Your task to perform on an android device: Open Google Maps Image 0: 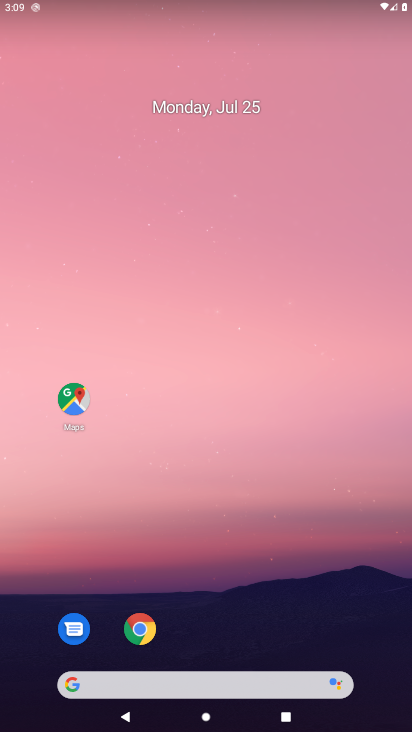
Step 0: click (82, 399)
Your task to perform on an android device: Open Google Maps Image 1: 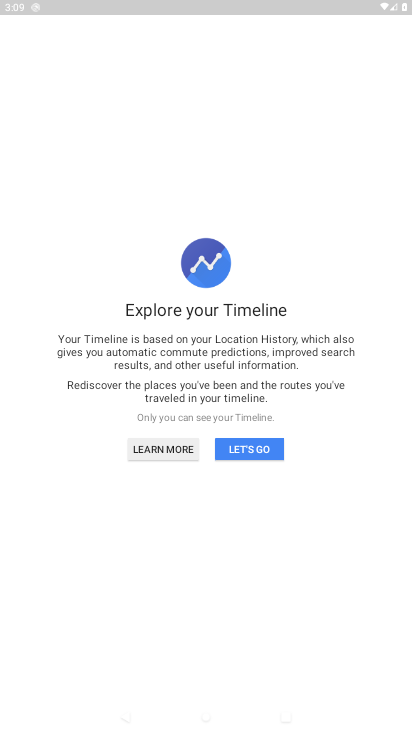
Step 1: click (224, 453)
Your task to perform on an android device: Open Google Maps Image 2: 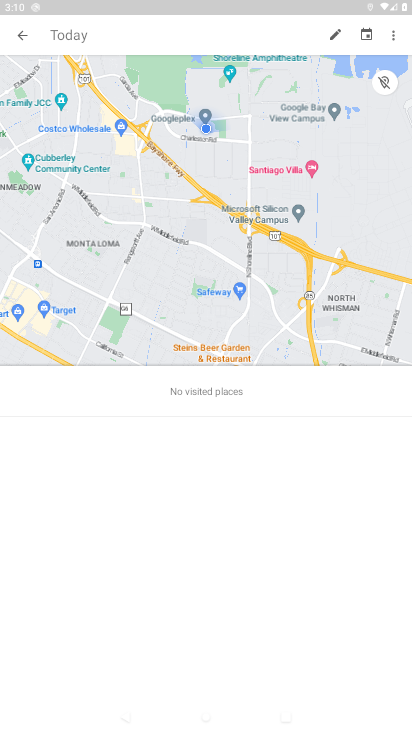
Step 2: task complete